Your task to perform on an android device: Go to accessibility settings Image 0: 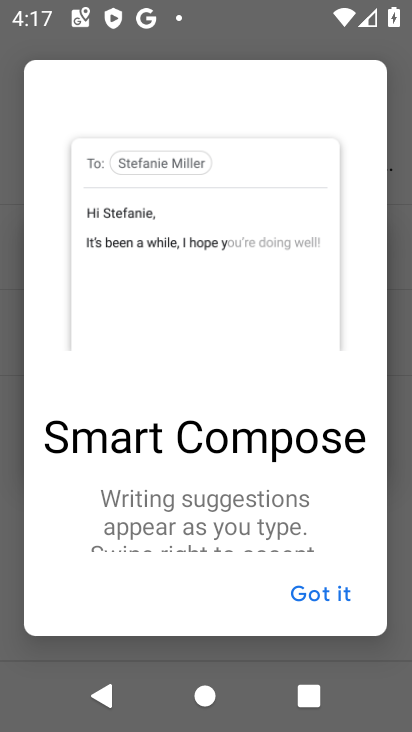
Step 0: press home button
Your task to perform on an android device: Go to accessibility settings Image 1: 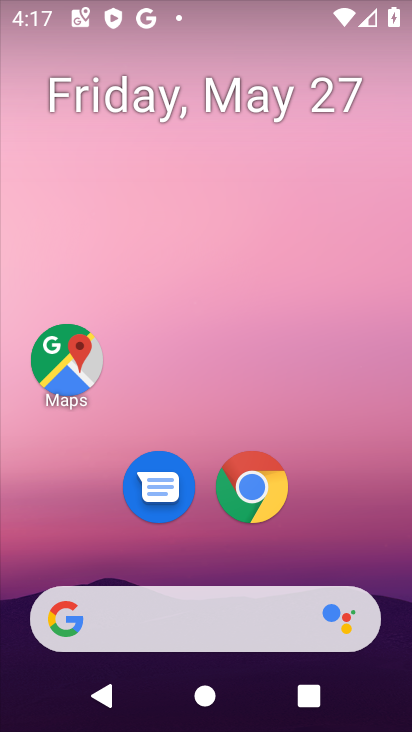
Step 1: drag from (338, 395) to (353, 107)
Your task to perform on an android device: Go to accessibility settings Image 2: 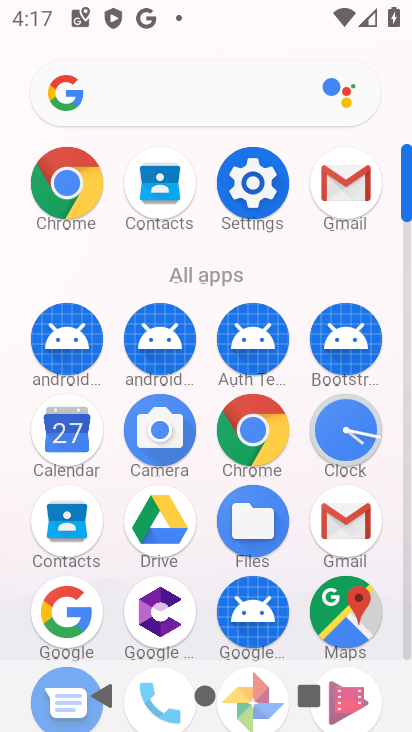
Step 2: click (262, 186)
Your task to perform on an android device: Go to accessibility settings Image 3: 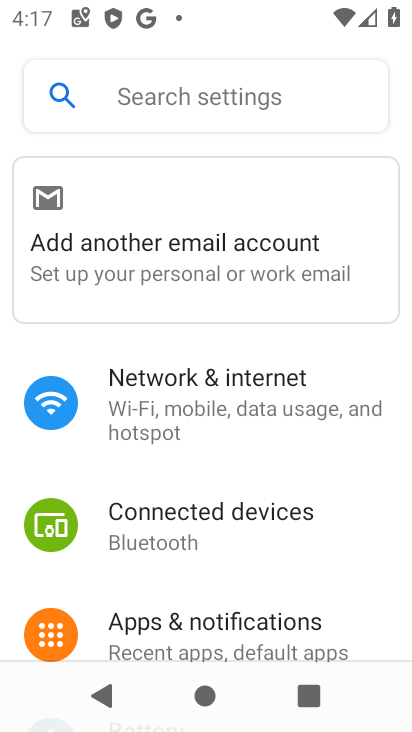
Step 3: drag from (261, 538) to (327, 9)
Your task to perform on an android device: Go to accessibility settings Image 4: 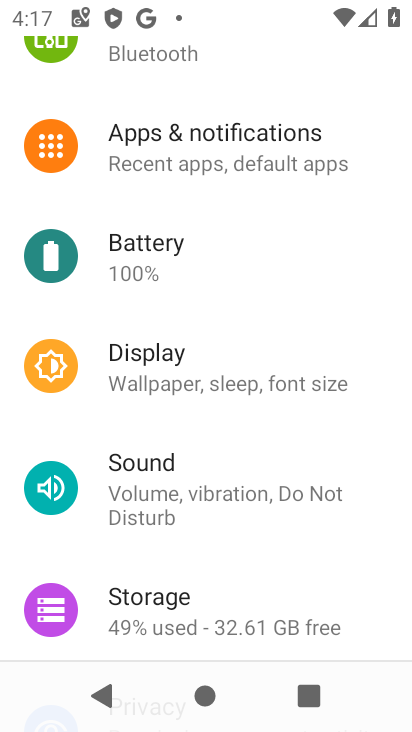
Step 4: drag from (194, 544) to (262, 70)
Your task to perform on an android device: Go to accessibility settings Image 5: 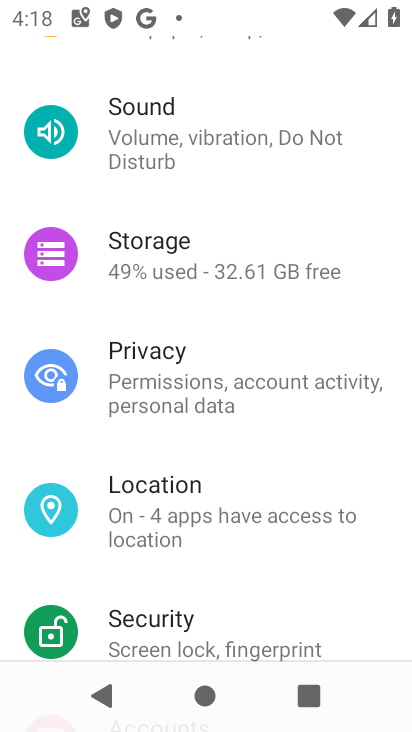
Step 5: drag from (213, 599) to (230, 73)
Your task to perform on an android device: Go to accessibility settings Image 6: 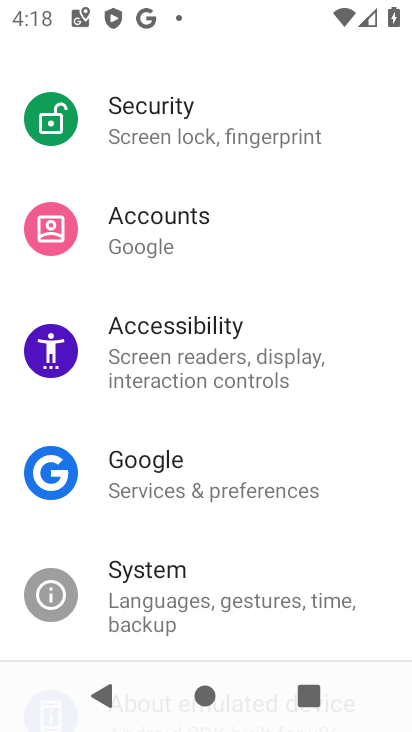
Step 6: drag from (227, 511) to (216, 327)
Your task to perform on an android device: Go to accessibility settings Image 7: 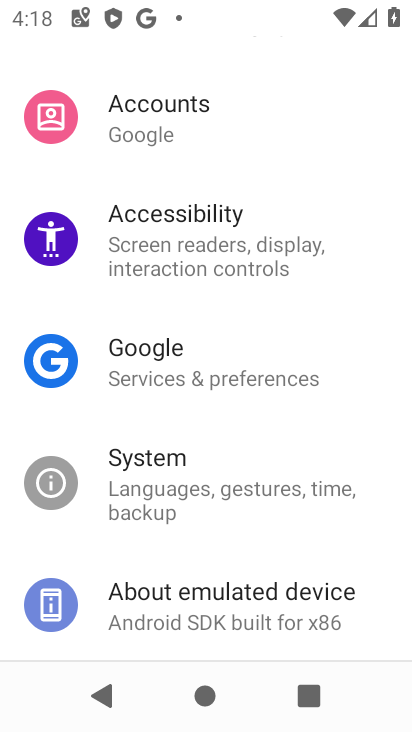
Step 7: click (182, 238)
Your task to perform on an android device: Go to accessibility settings Image 8: 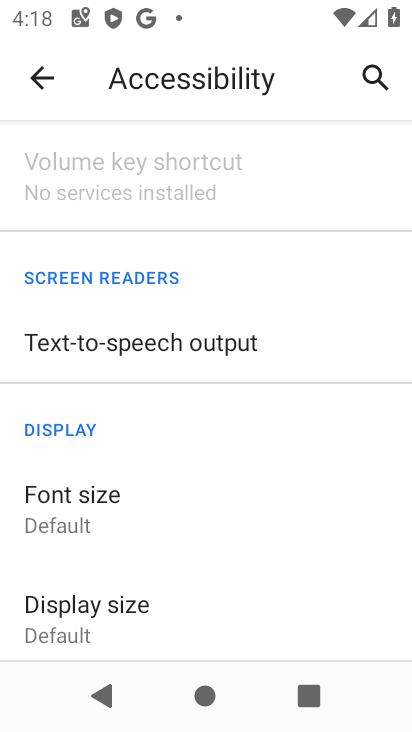
Step 8: task complete